Your task to perform on an android device: turn off location Image 0: 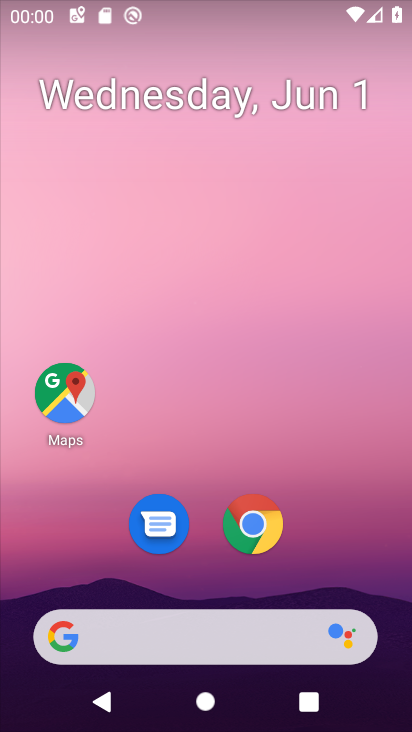
Step 0: drag from (330, 524) to (339, 37)
Your task to perform on an android device: turn off location Image 1: 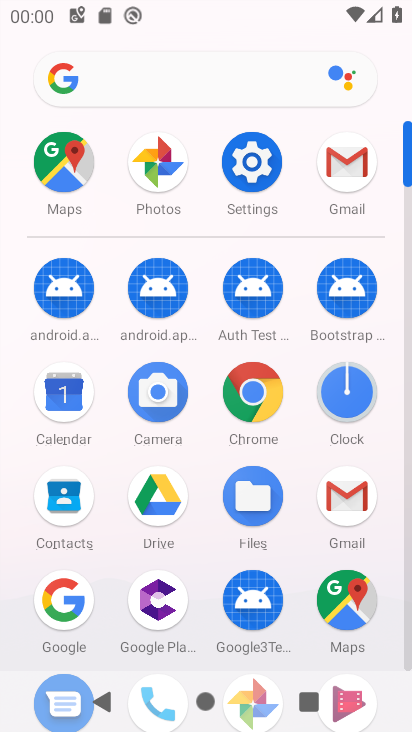
Step 1: click (269, 149)
Your task to perform on an android device: turn off location Image 2: 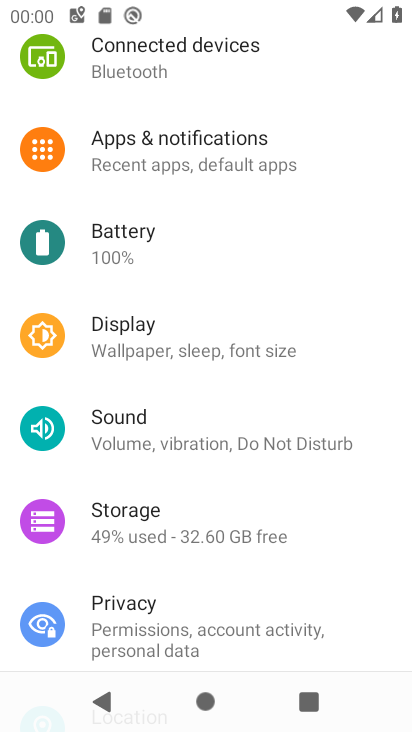
Step 2: drag from (206, 451) to (214, 177)
Your task to perform on an android device: turn off location Image 3: 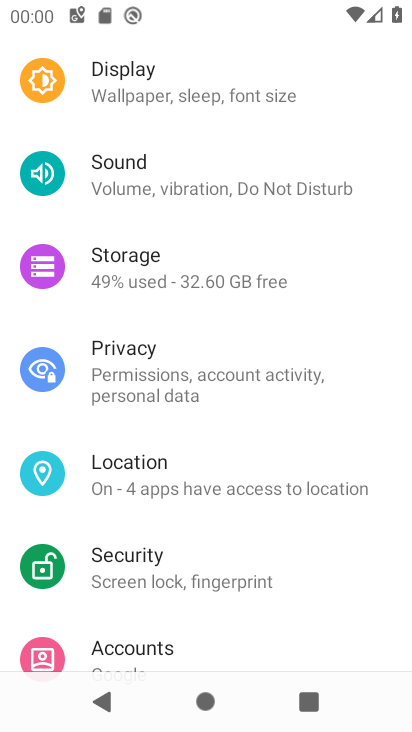
Step 3: click (206, 491)
Your task to perform on an android device: turn off location Image 4: 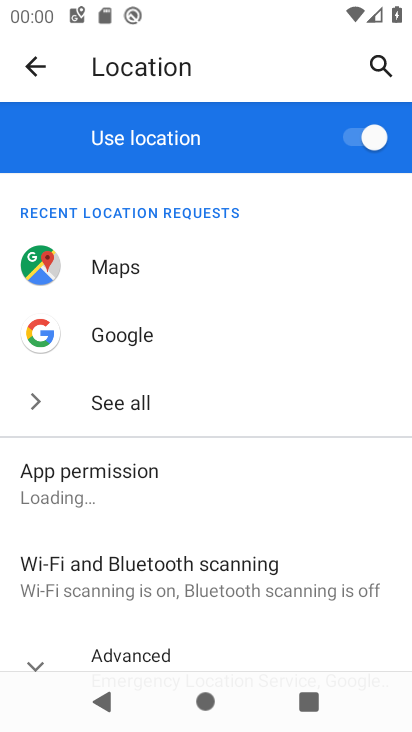
Step 4: click (356, 126)
Your task to perform on an android device: turn off location Image 5: 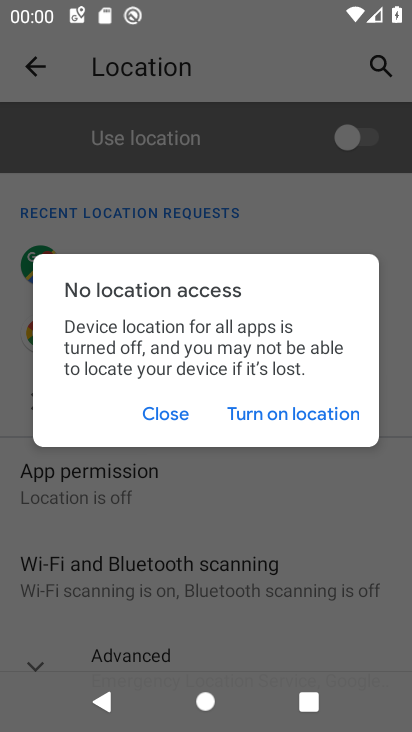
Step 5: task complete